Your task to perform on an android device: set the stopwatch Image 0: 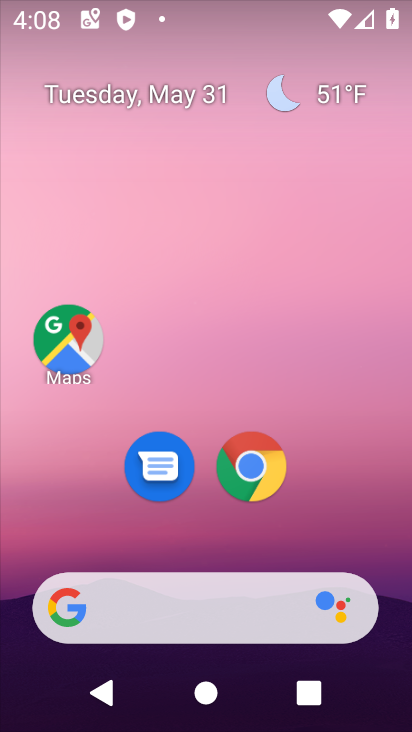
Step 0: press home button
Your task to perform on an android device: set the stopwatch Image 1: 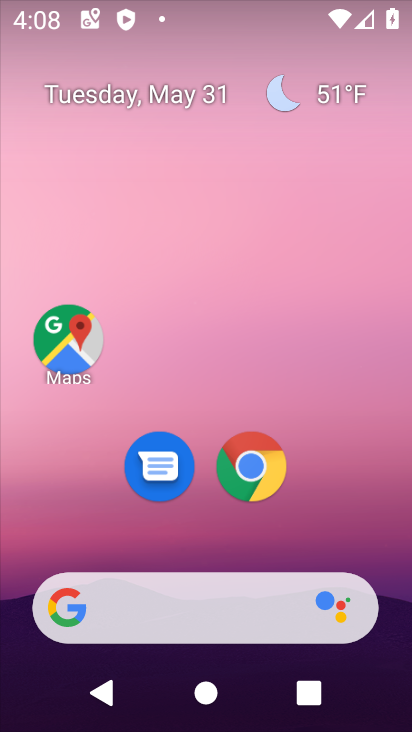
Step 1: drag from (210, 544) to (240, 68)
Your task to perform on an android device: set the stopwatch Image 2: 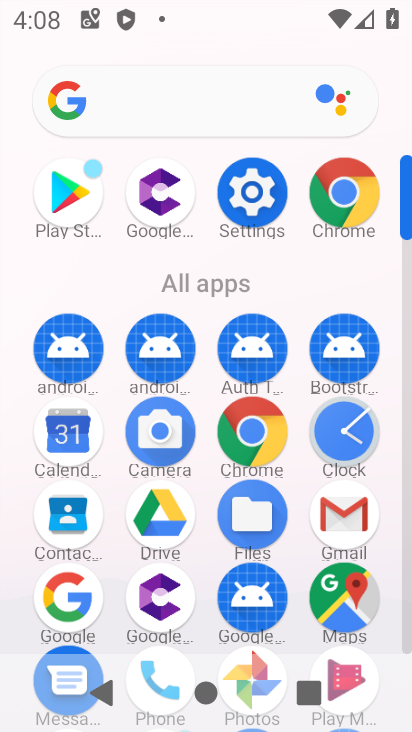
Step 2: click (341, 424)
Your task to perform on an android device: set the stopwatch Image 3: 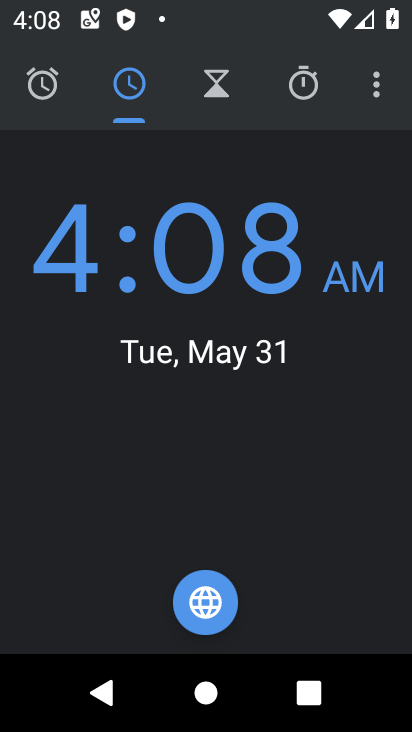
Step 3: click (301, 79)
Your task to perform on an android device: set the stopwatch Image 4: 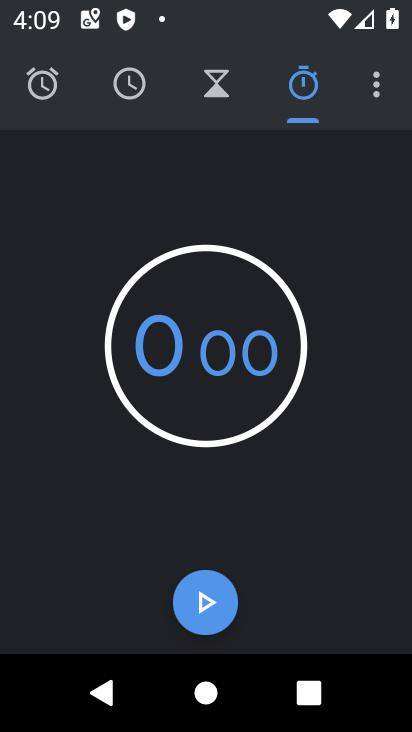
Step 4: click (201, 593)
Your task to perform on an android device: set the stopwatch Image 5: 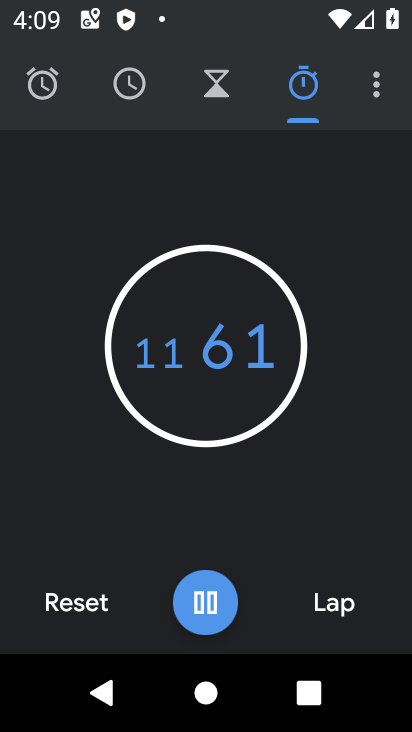
Step 5: click (76, 599)
Your task to perform on an android device: set the stopwatch Image 6: 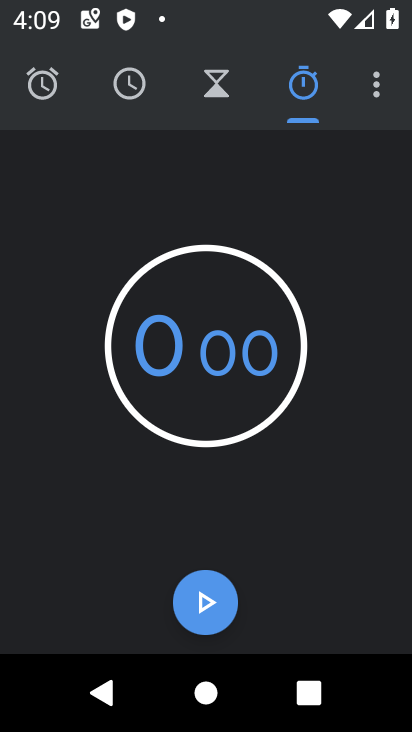
Step 6: task complete